Your task to perform on an android device: check storage Image 0: 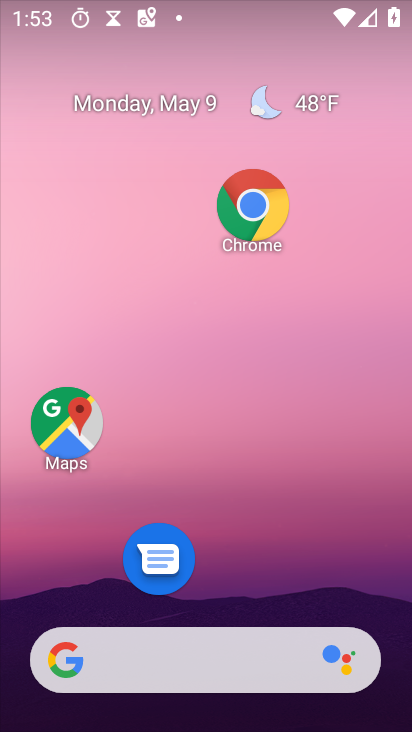
Step 0: drag from (278, 568) to (339, 288)
Your task to perform on an android device: check storage Image 1: 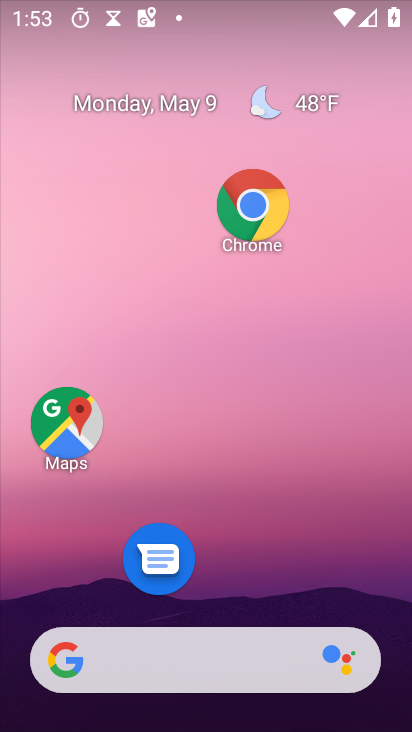
Step 1: drag from (290, 562) to (316, 163)
Your task to perform on an android device: check storage Image 2: 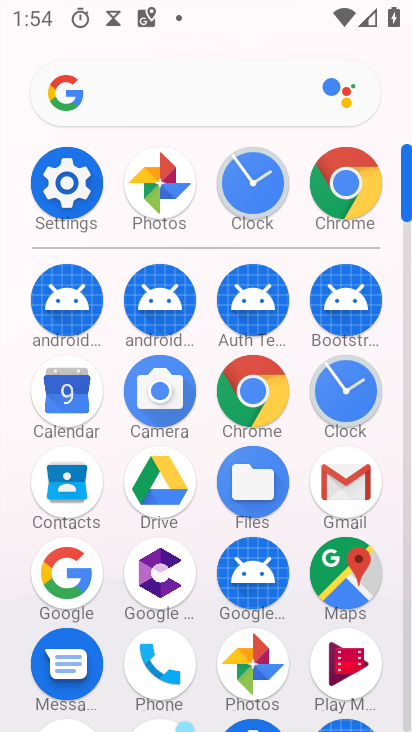
Step 2: click (63, 162)
Your task to perform on an android device: check storage Image 3: 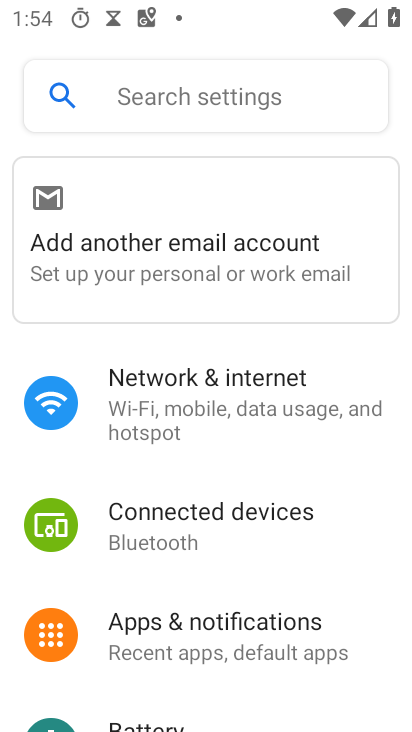
Step 3: drag from (214, 622) to (250, 155)
Your task to perform on an android device: check storage Image 4: 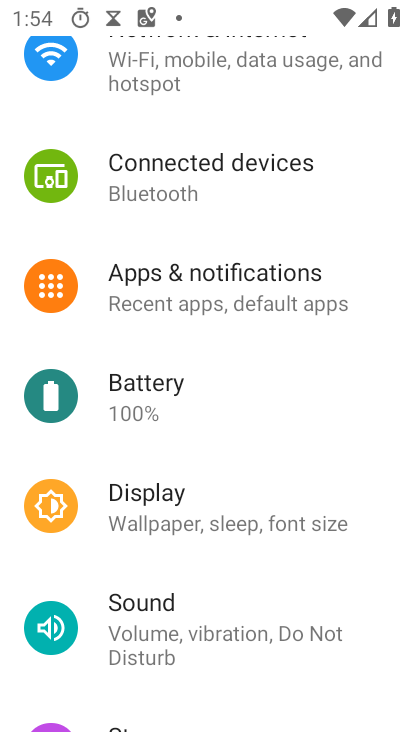
Step 4: drag from (174, 607) to (242, 184)
Your task to perform on an android device: check storage Image 5: 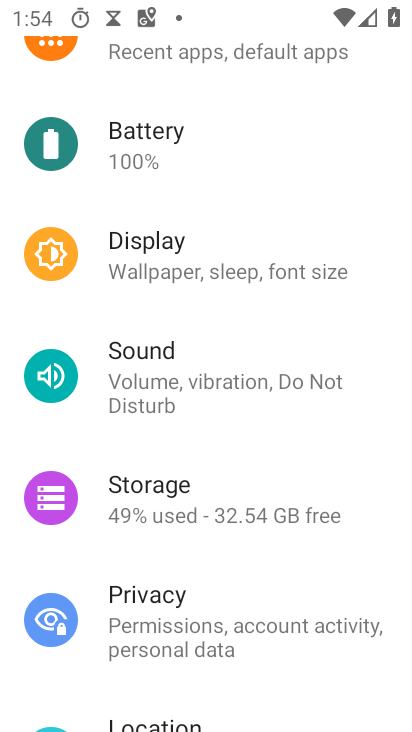
Step 5: click (201, 476)
Your task to perform on an android device: check storage Image 6: 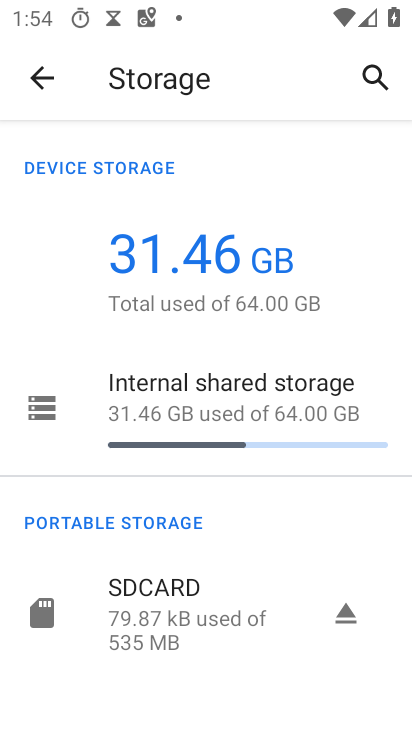
Step 6: task complete